Your task to perform on an android device: Check the weather Image 0: 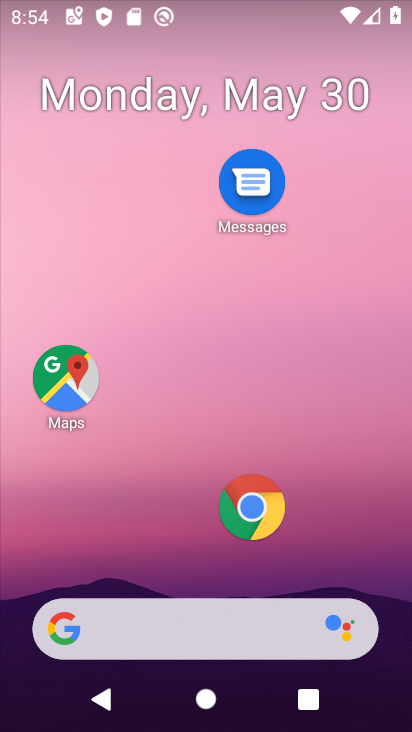
Step 0: drag from (208, 561) to (211, 139)
Your task to perform on an android device: Check the weather Image 1: 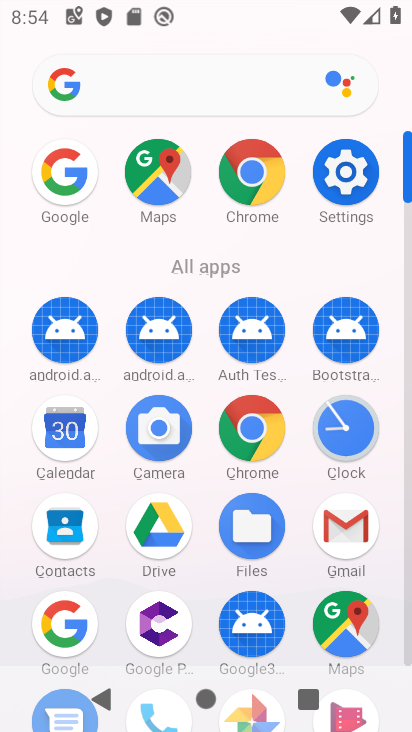
Step 1: click (73, 173)
Your task to perform on an android device: Check the weather Image 2: 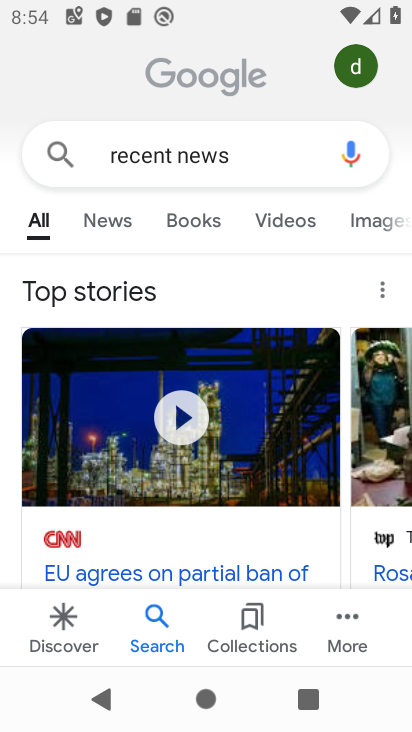
Step 2: click (272, 134)
Your task to perform on an android device: Check the weather Image 3: 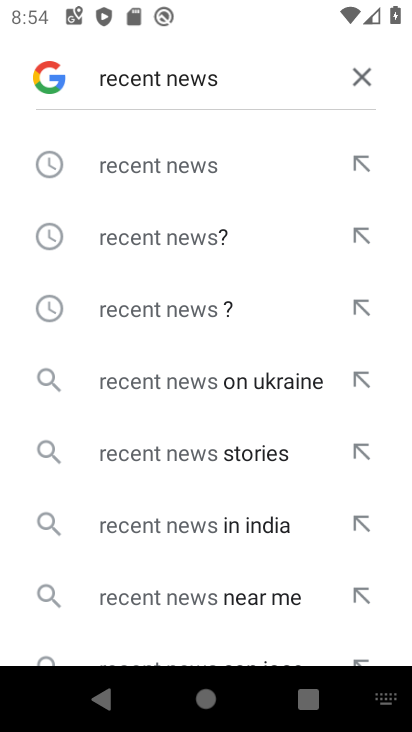
Step 3: click (371, 83)
Your task to perform on an android device: Check the weather Image 4: 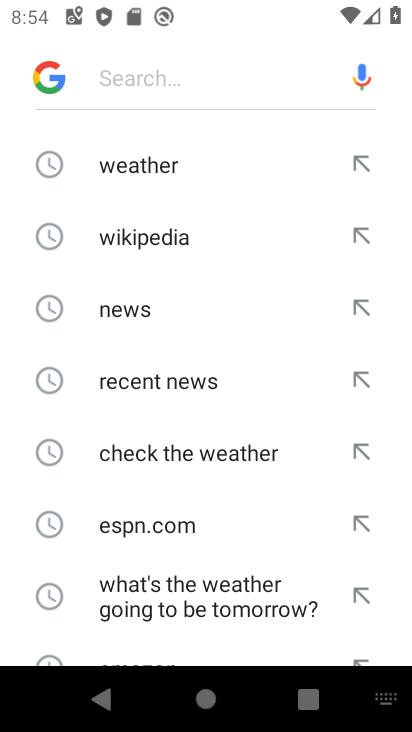
Step 4: click (170, 160)
Your task to perform on an android device: Check the weather Image 5: 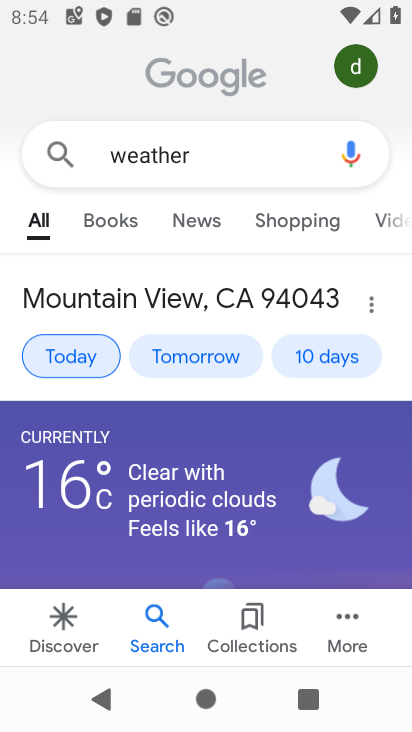
Step 5: task complete